Your task to perform on an android device: allow cookies in the chrome app Image 0: 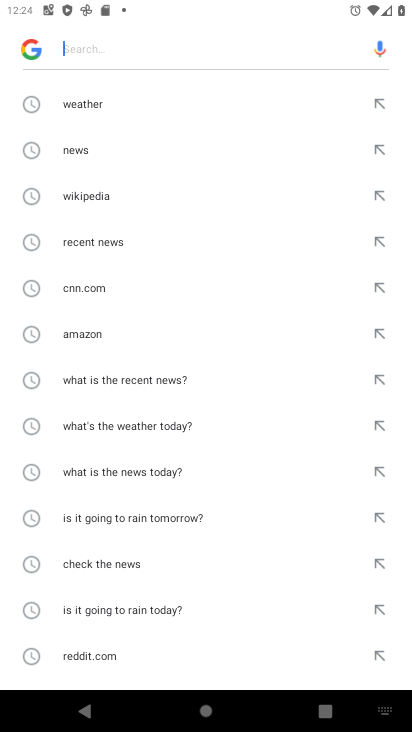
Step 0: press back button
Your task to perform on an android device: allow cookies in the chrome app Image 1: 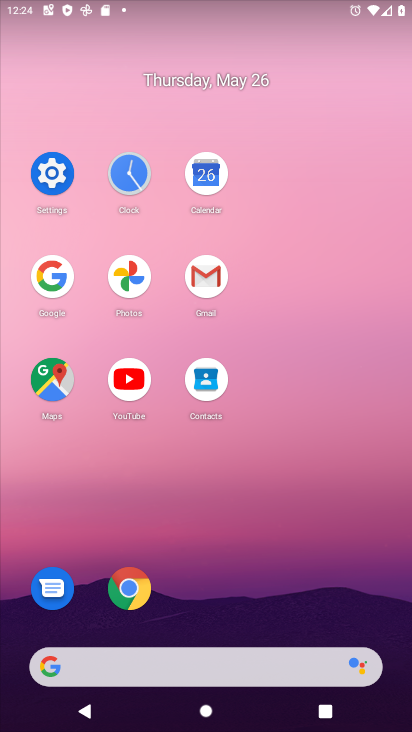
Step 1: click (145, 579)
Your task to perform on an android device: allow cookies in the chrome app Image 2: 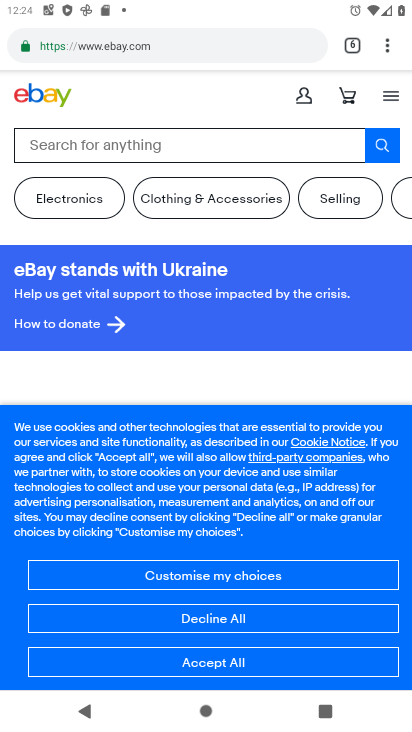
Step 2: click (378, 50)
Your task to perform on an android device: allow cookies in the chrome app Image 3: 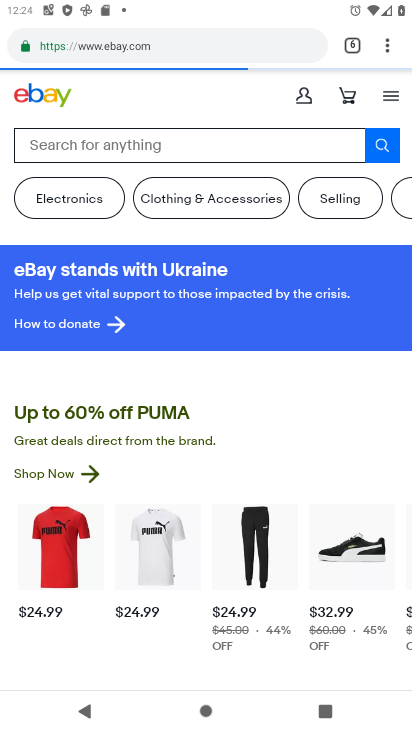
Step 3: click (380, 56)
Your task to perform on an android device: allow cookies in the chrome app Image 4: 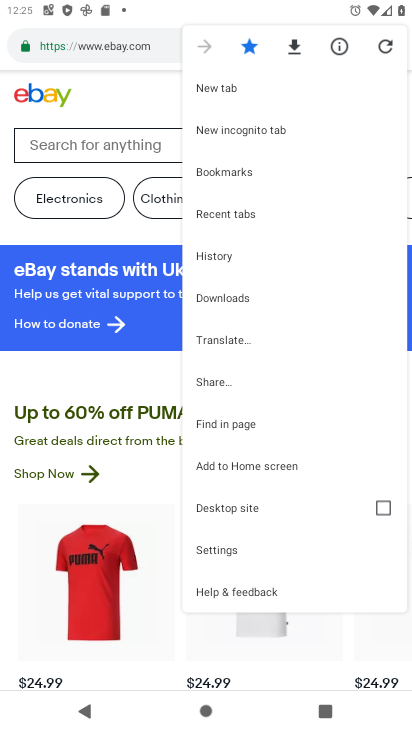
Step 4: click (258, 554)
Your task to perform on an android device: allow cookies in the chrome app Image 5: 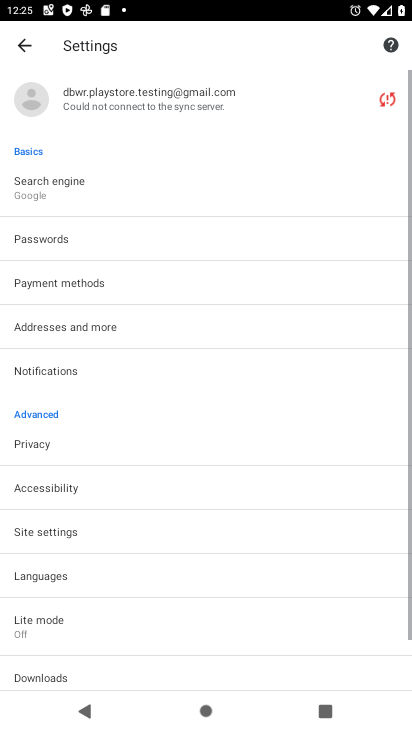
Step 5: drag from (244, 533) to (208, 250)
Your task to perform on an android device: allow cookies in the chrome app Image 6: 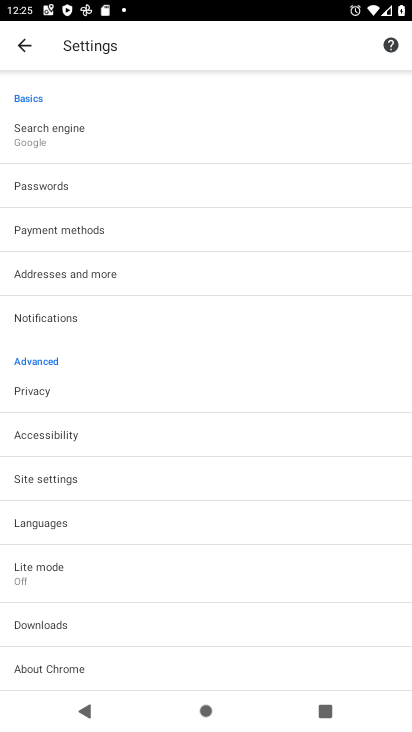
Step 6: click (153, 486)
Your task to perform on an android device: allow cookies in the chrome app Image 7: 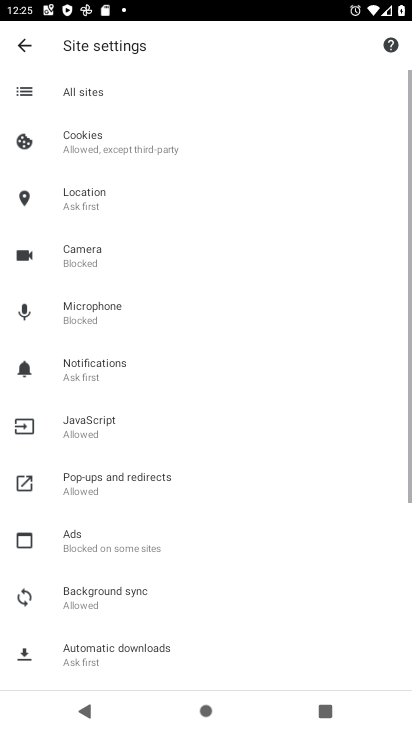
Step 7: click (209, 158)
Your task to perform on an android device: allow cookies in the chrome app Image 8: 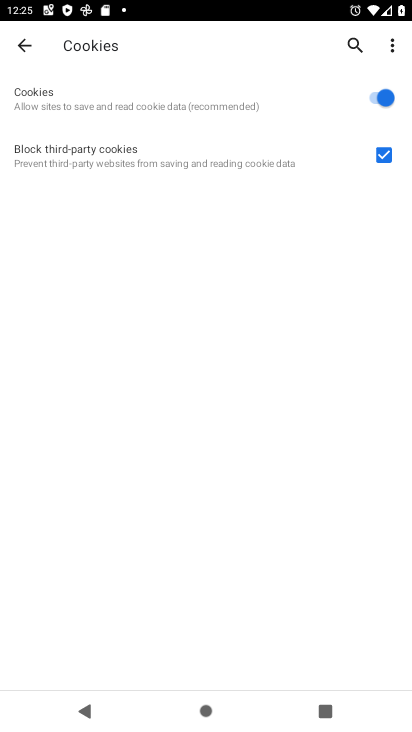
Step 8: task complete